Your task to perform on an android device: remove spam from my inbox in the gmail app Image 0: 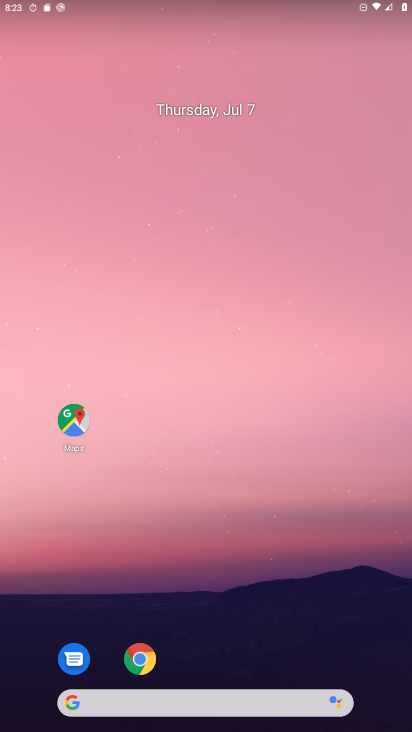
Step 0: drag from (377, 705) to (170, 30)
Your task to perform on an android device: remove spam from my inbox in the gmail app Image 1: 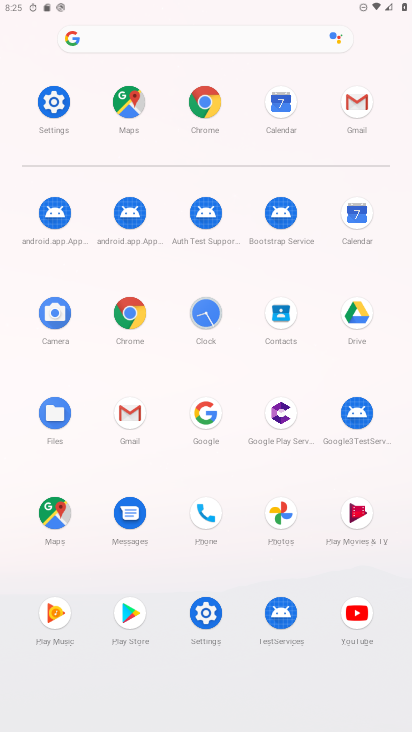
Step 1: click (132, 419)
Your task to perform on an android device: remove spam from my inbox in the gmail app Image 2: 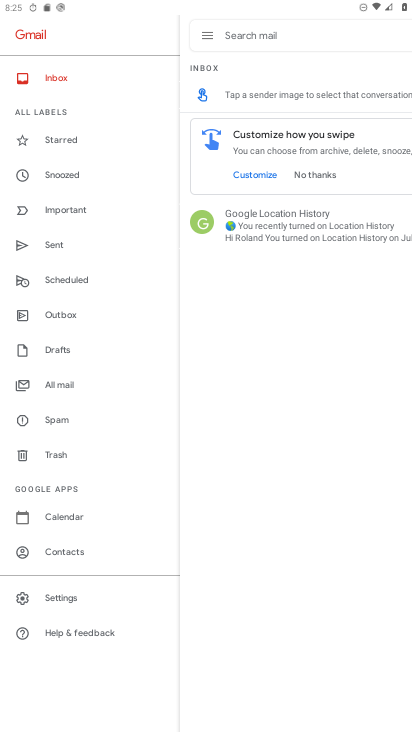
Step 2: task complete